Your task to perform on an android device: toggle priority inbox in the gmail app Image 0: 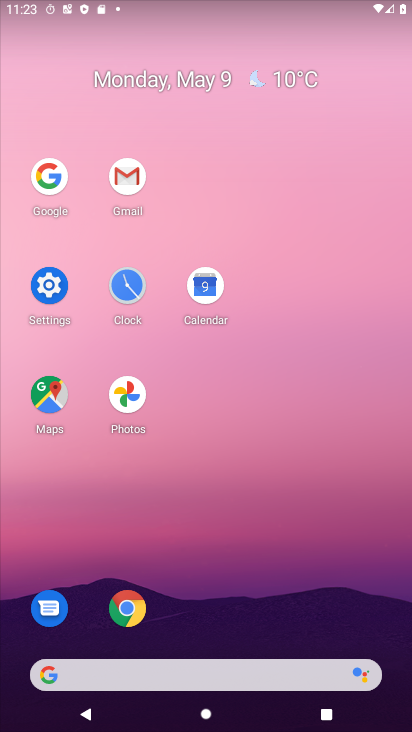
Step 0: click (134, 171)
Your task to perform on an android device: toggle priority inbox in the gmail app Image 1: 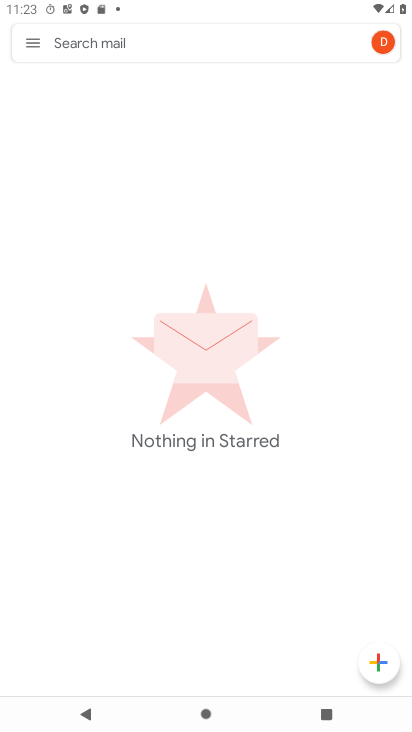
Step 1: click (38, 52)
Your task to perform on an android device: toggle priority inbox in the gmail app Image 2: 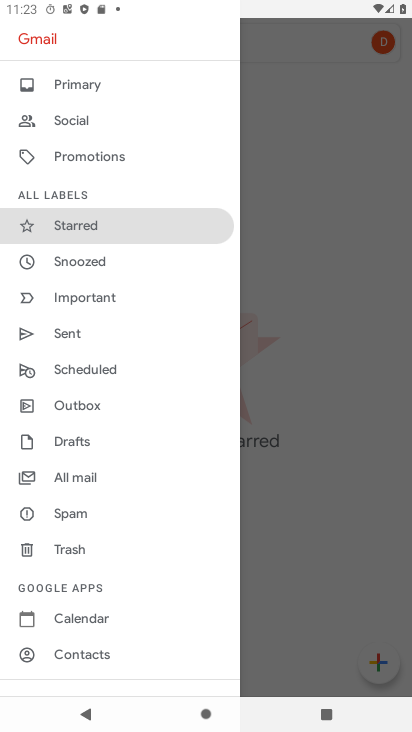
Step 2: drag from (103, 585) to (162, 130)
Your task to perform on an android device: toggle priority inbox in the gmail app Image 3: 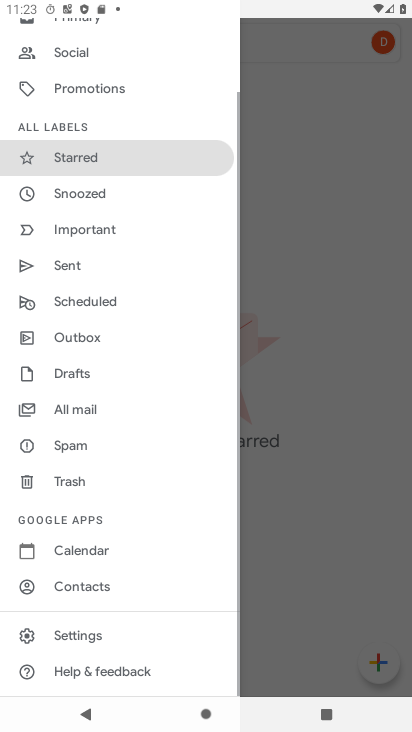
Step 3: click (79, 628)
Your task to perform on an android device: toggle priority inbox in the gmail app Image 4: 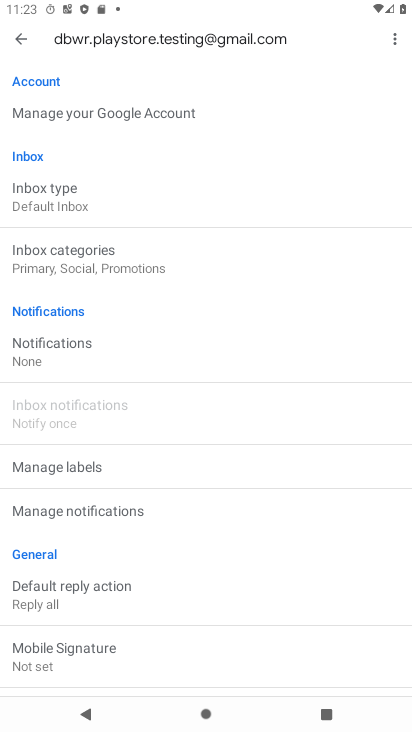
Step 4: click (132, 207)
Your task to perform on an android device: toggle priority inbox in the gmail app Image 5: 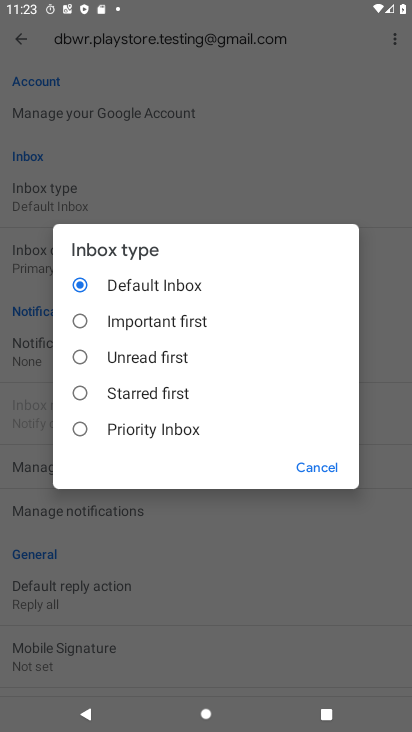
Step 5: click (149, 426)
Your task to perform on an android device: toggle priority inbox in the gmail app Image 6: 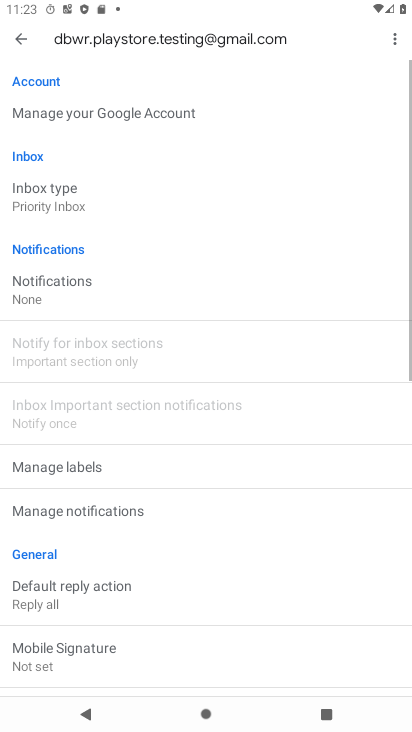
Step 6: task complete